Your task to perform on an android device: turn on translation in the chrome app Image 0: 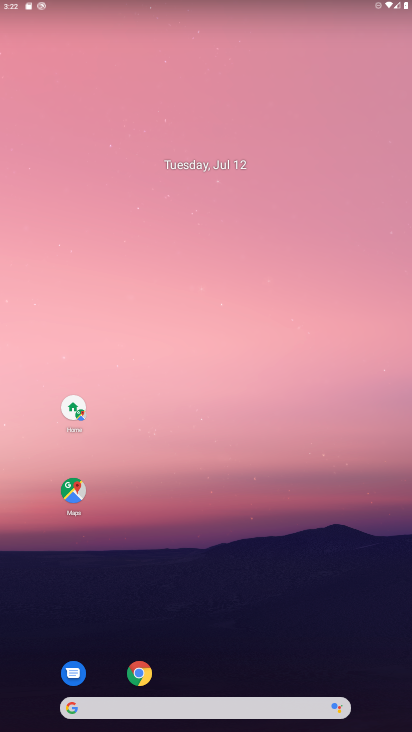
Step 0: drag from (309, 593) to (291, 304)
Your task to perform on an android device: turn on translation in the chrome app Image 1: 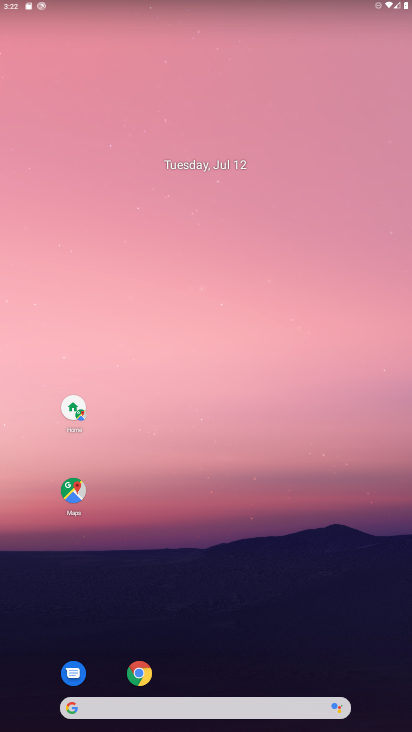
Step 1: drag from (242, 619) to (212, 198)
Your task to perform on an android device: turn on translation in the chrome app Image 2: 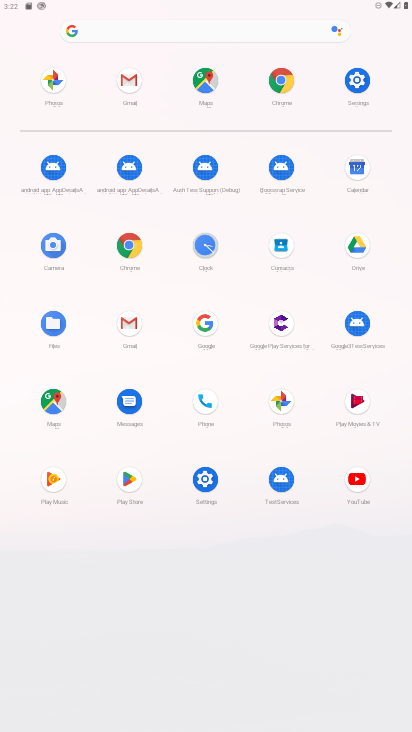
Step 2: click (280, 76)
Your task to perform on an android device: turn on translation in the chrome app Image 3: 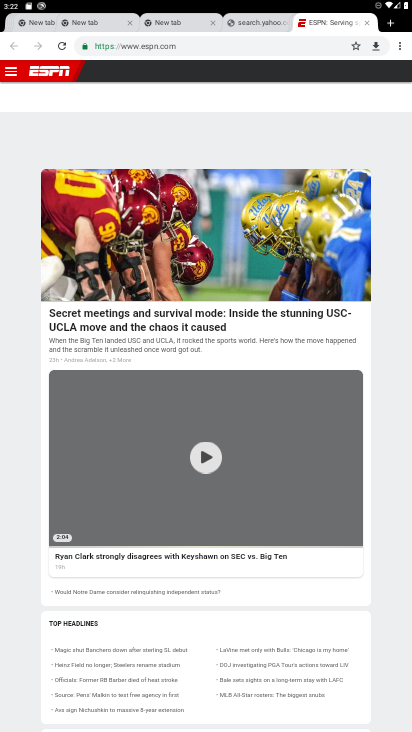
Step 3: click (402, 46)
Your task to perform on an android device: turn on translation in the chrome app Image 4: 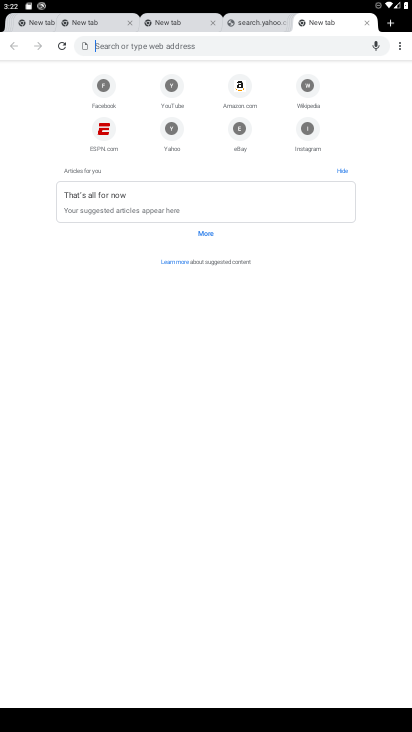
Step 4: click (393, 45)
Your task to perform on an android device: turn on translation in the chrome app Image 5: 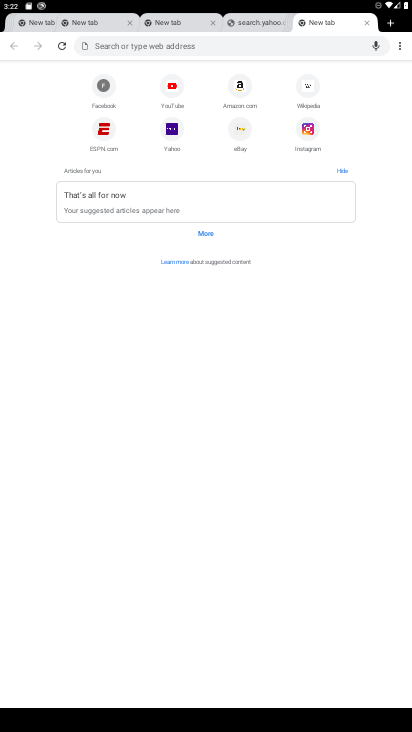
Step 5: click (407, 45)
Your task to perform on an android device: turn on translation in the chrome app Image 6: 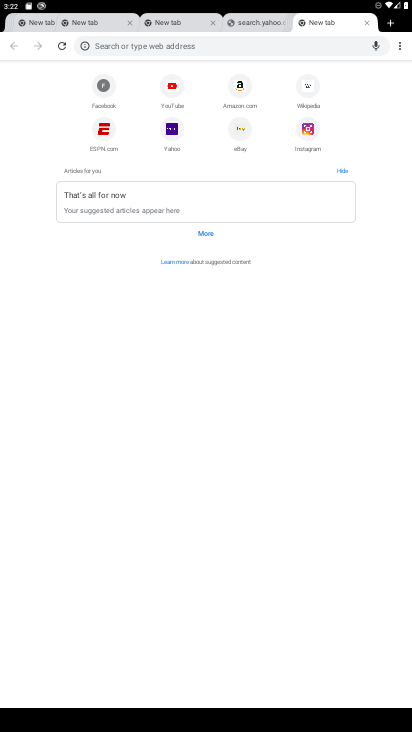
Step 6: click (407, 45)
Your task to perform on an android device: turn on translation in the chrome app Image 7: 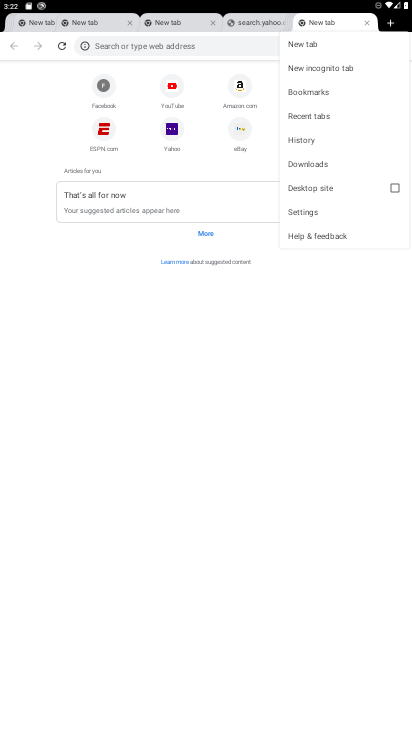
Step 7: click (323, 212)
Your task to perform on an android device: turn on translation in the chrome app Image 8: 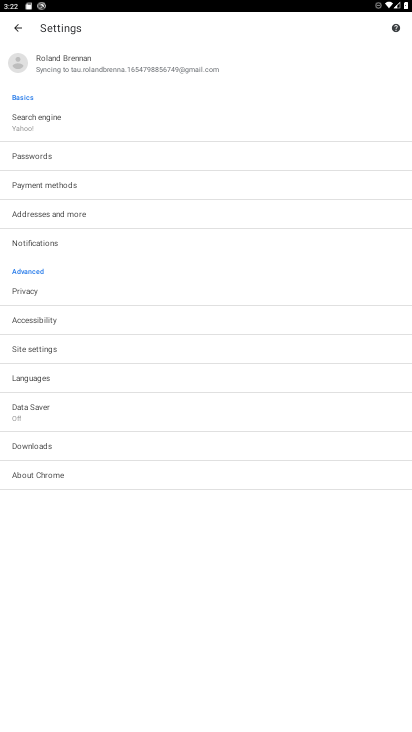
Step 8: click (81, 371)
Your task to perform on an android device: turn on translation in the chrome app Image 9: 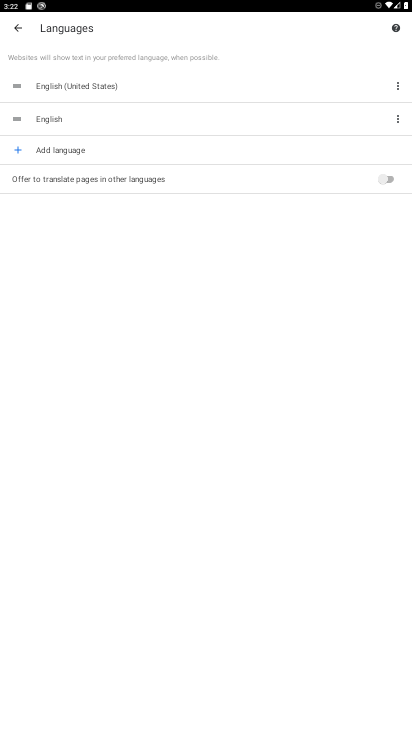
Step 9: click (389, 176)
Your task to perform on an android device: turn on translation in the chrome app Image 10: 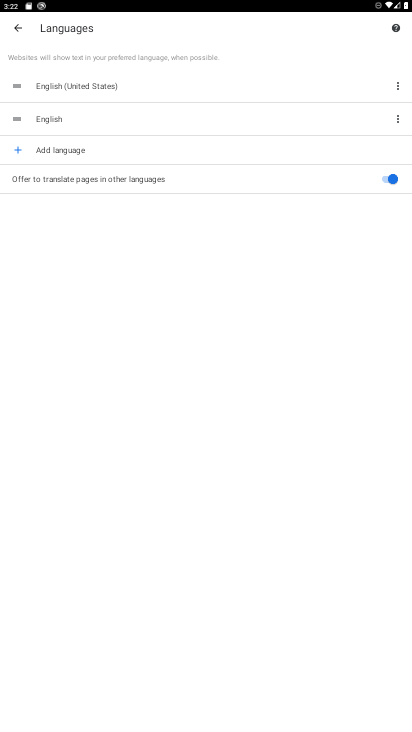
Step 10: task complete